Your task to perform on an android device: turn pop-ups off in chrome Image 0: 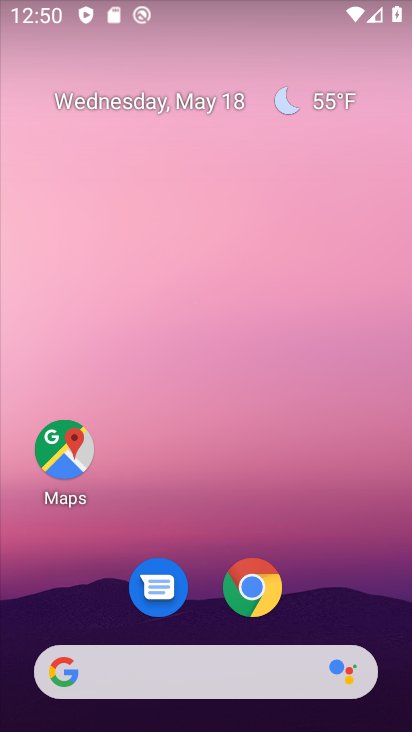
Step 0: click (264, 583)
Your task to perform on an android device: turn pop-ups off in chrome Image 1: 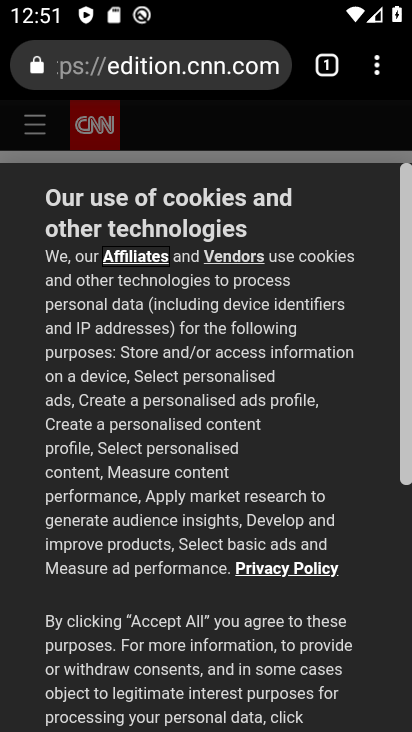
Step 1: click (375, 68)
Your task to perform on an android device: turn pop-ups off in chrome Image 2: 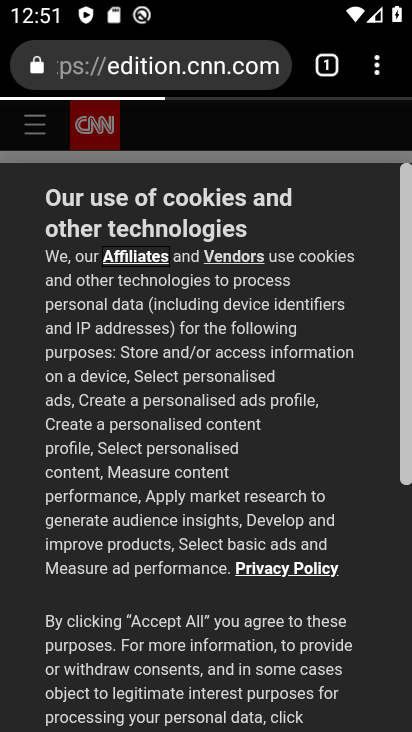
Step 2: drag from (371, 69) to (154, 639)
Your task to perform on an android device: turn pop-ups off in chrome Image 3: 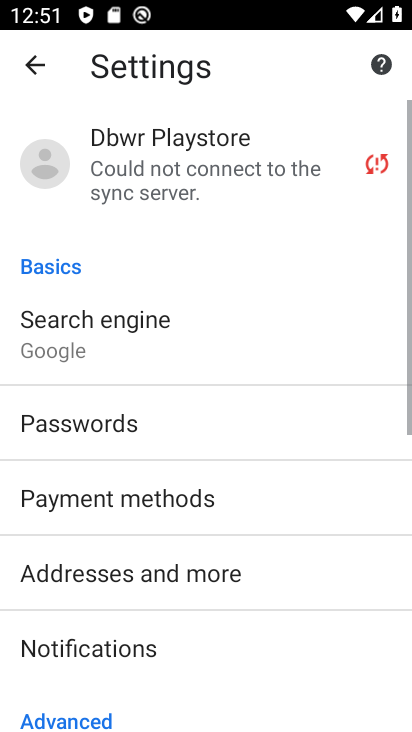
Step 3: drag from (168, 605) to (216, 313)
Your task to perform on an android device: turn pop-ups off in chrome Image 4: 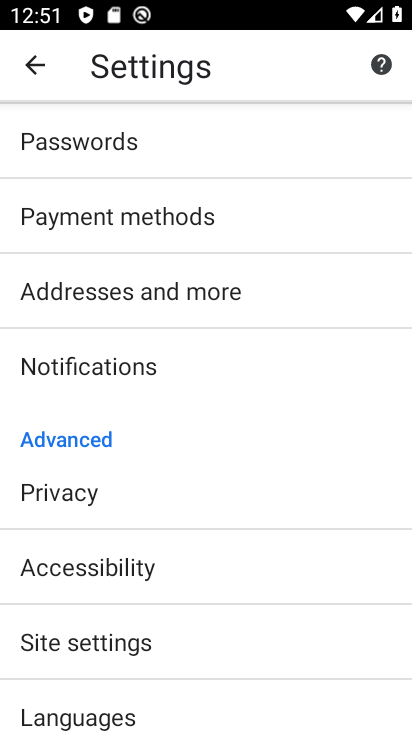
Step 4: click (149, 635)
Your task to perform on an android device: turn pop-ups off in chrome Image 5: 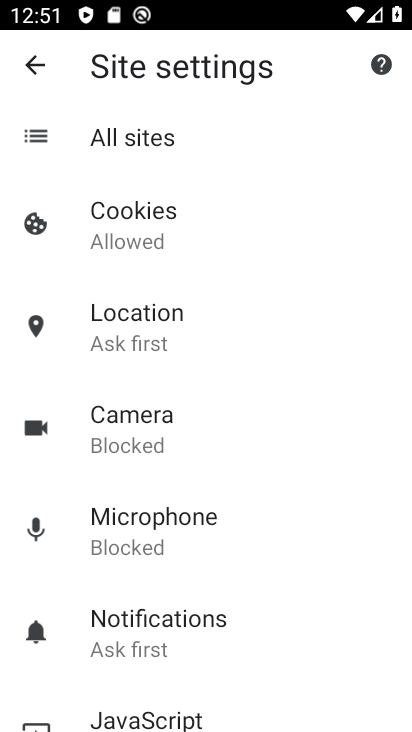
Step 5: drag from (175, 665) to (288, 139)
Your task to perform on an android device: turn pop-ups off in chrome Image 6: 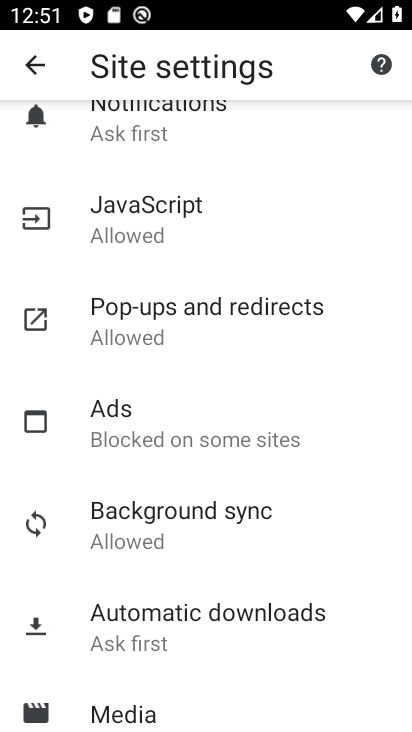
Step 6: click (166, 317)
Your task to perform on an android device: turn pop-ups off in chrome Image 7: 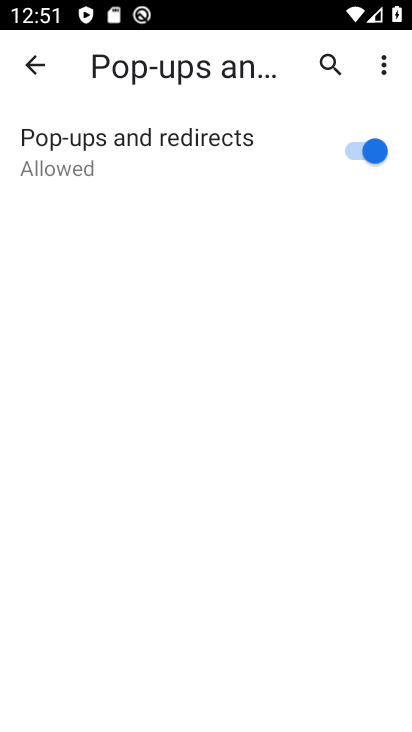
Step 7: click (368, 142)
Your task to perform on an android device: turn pop-ups off in chrome Image 8: 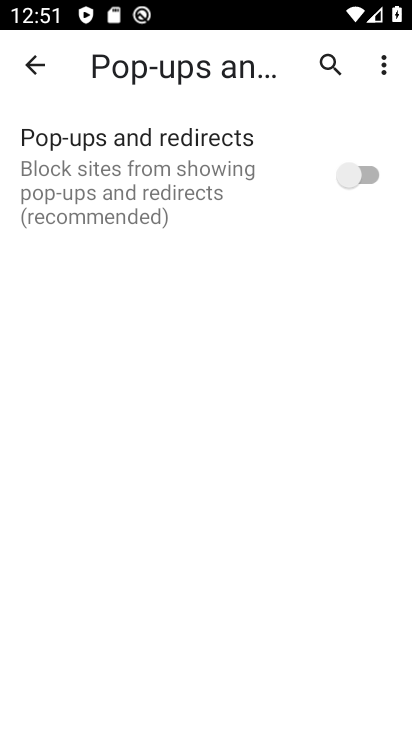
Step 8: task complete